Your task to perform on an android device: Open Chrome and go to settings Image 0: 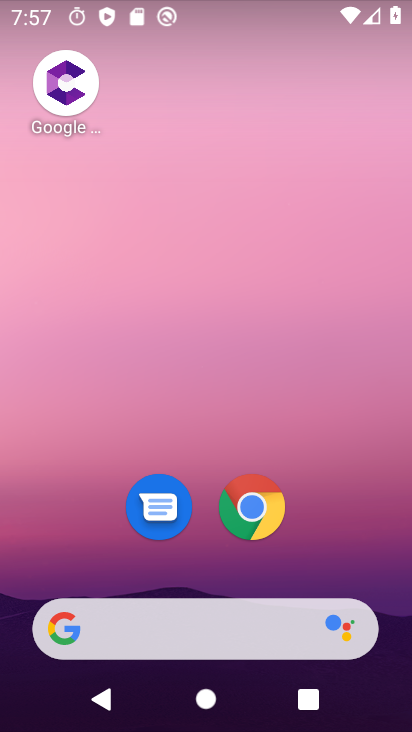
Step 0: drag from (336, 553) to (243, 19)
Your task to perform on an android device: Open Chrome and go to settings Image 1: 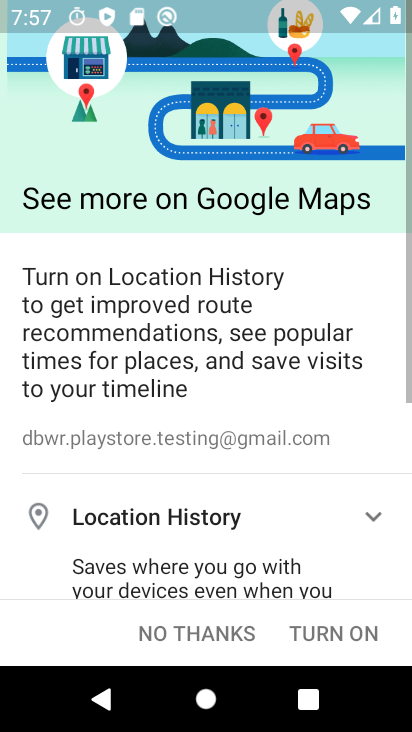
Step 1: press back button
Your task to perform on an android device: Open Chrome and go to settings Image 2: 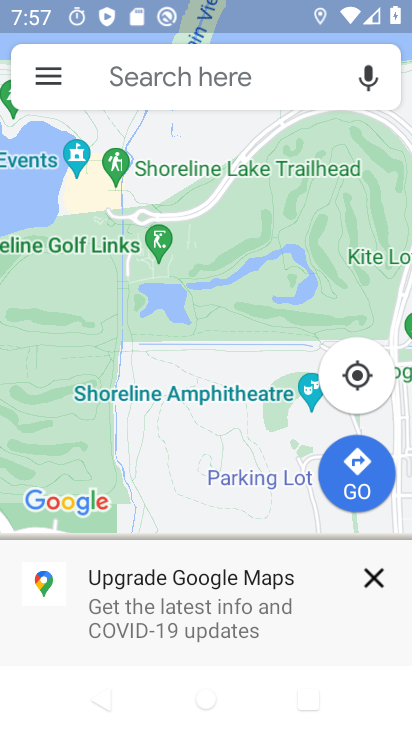
Step 2: press back button
Your task to perform on an android device: Open Chrome and go to settings Image 3: 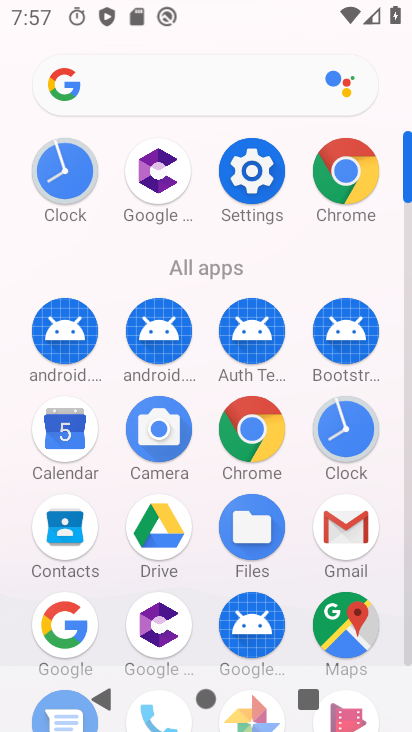
Step 3: click (343, 168)
Your task to perform on an android device: Open Chrome and go to settings Image 4: 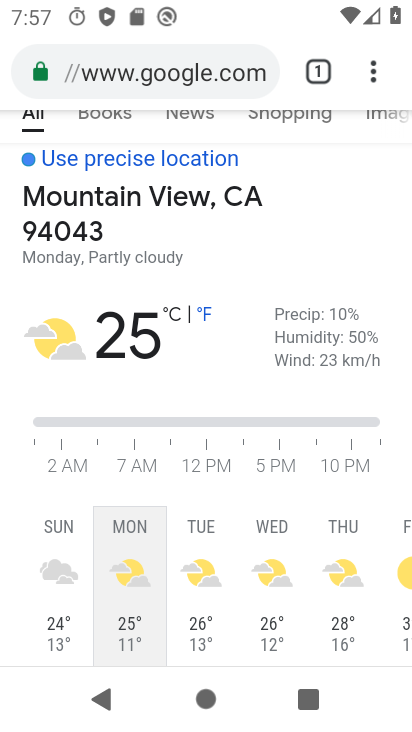
Step 4: task complete